Your task to perform on an android device: turn off picture-in-picture Image 0: 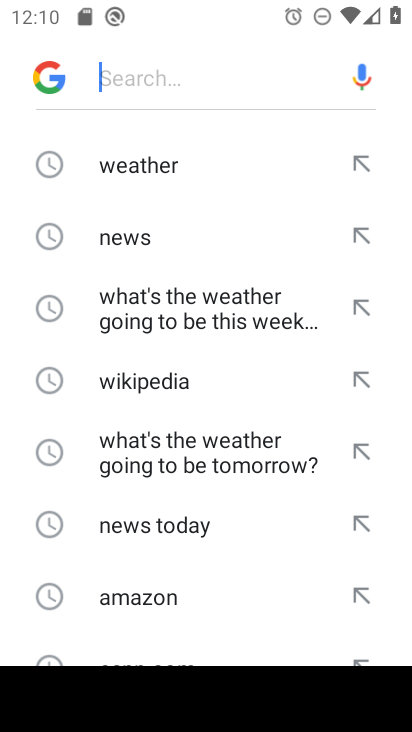
Step 0: press home button
Your task to perform on an android device: turn off picture-in-picture Image 1: 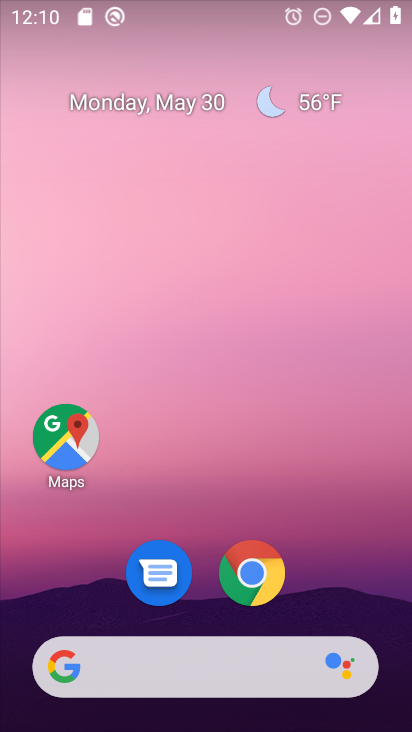
Step 1: drag from (278, 633) to (193, 0)
Your task to perform on an android device: turn off picture-in-picture Image 2: 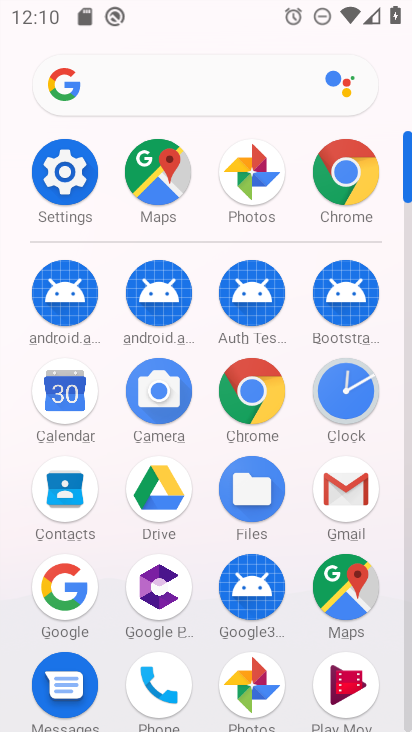
Step 2: click (65, 166)
Your task to perform on an android device: turn off picture-in-picture Image 3: 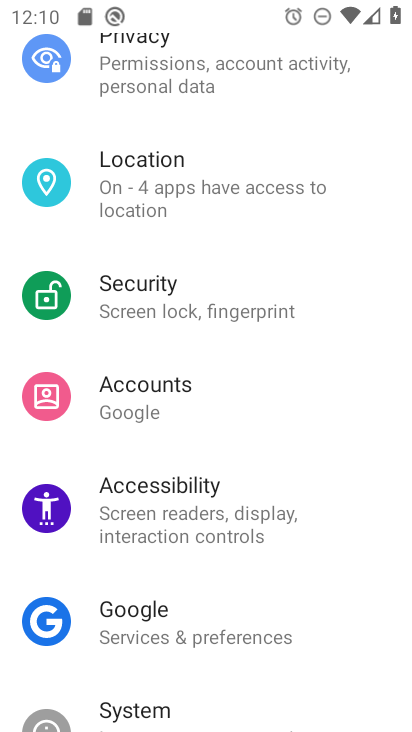
Step 3: drag from (279, 669) to (298, 30)
Your task to perform on an android device: turn off picture-in-picture Image 4: 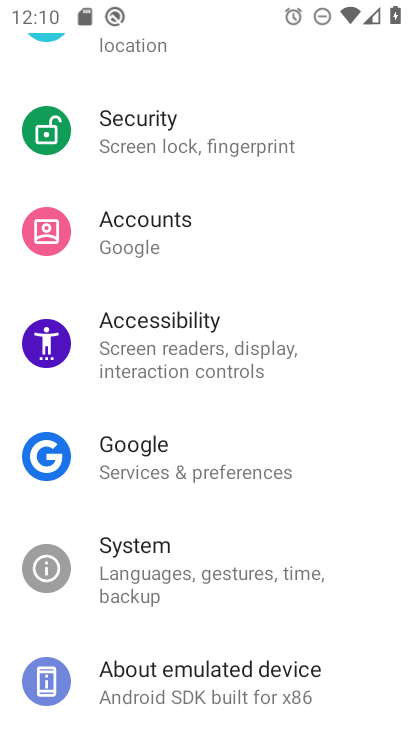
Step 4: click (227, 577)
Your task to perform on an android device: turn off picture-in-picture Image 5: 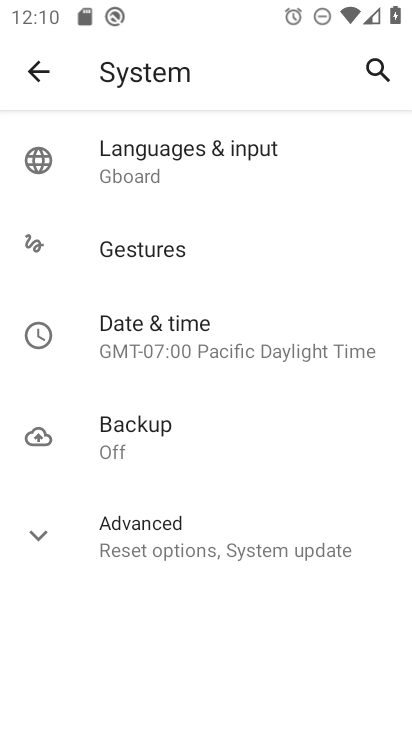
Step 5: click (159, 156)
Your task to perform on an android device: turn off picture-in-picture Image 6: 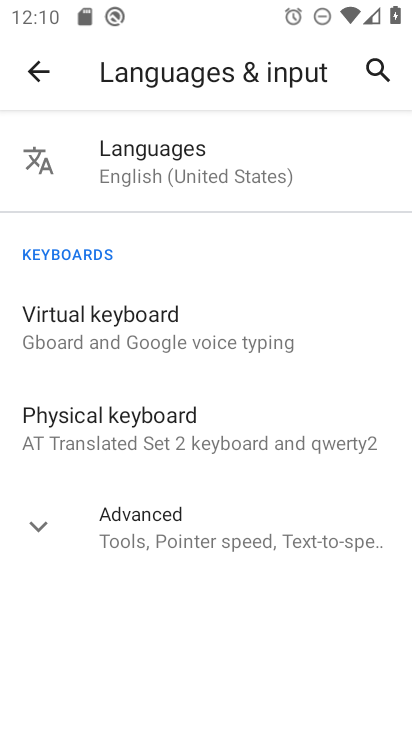
Step 6: click (178, 324)
Your task to perform on an android device: turn off picture-in-picture Image 7: 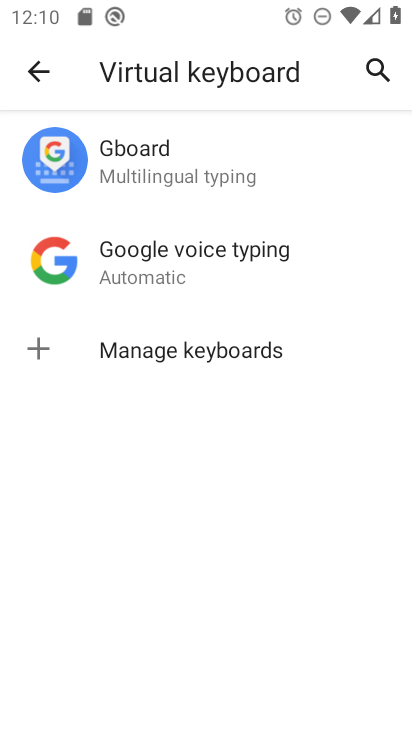
Step 7: click (161, 141)
Your task to perform on an android device: turn off picture-in-picture Image 8: 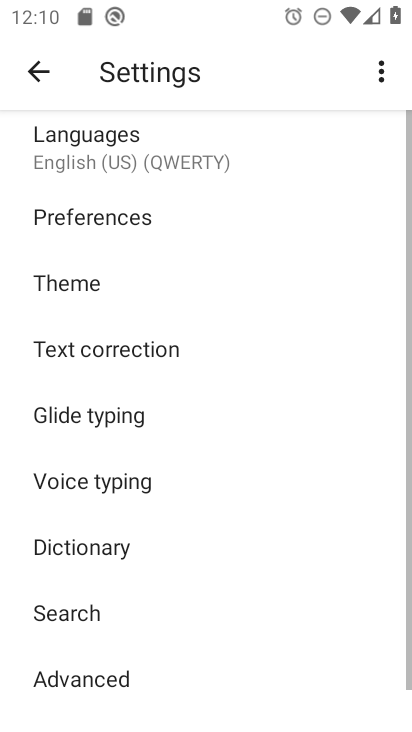
Step 8: drag from (206, 642) to (227, 450)
Your task to perform on an android device: turn off picture-in-picture Image 9: 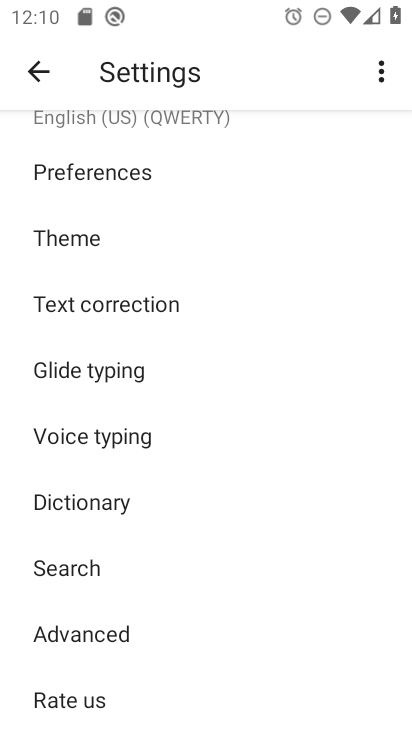
Step 9: click (75, 228)
Your task to perform on an android device: turn off picture-in-picture Image 10: 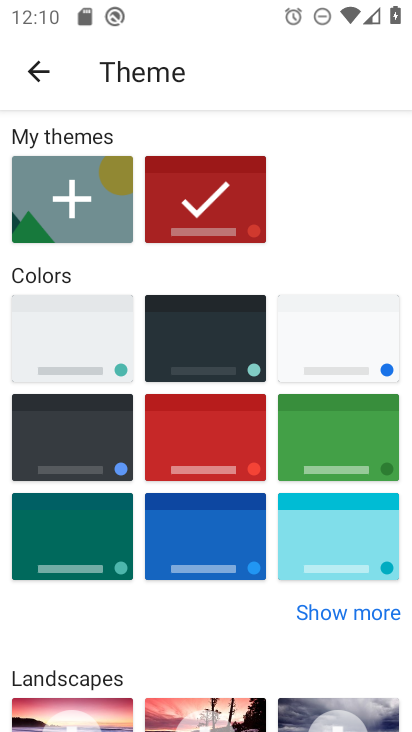
Step 10: click (358, 423)
Your task to perform on an android device: turn off picture-in-picture Image 11: 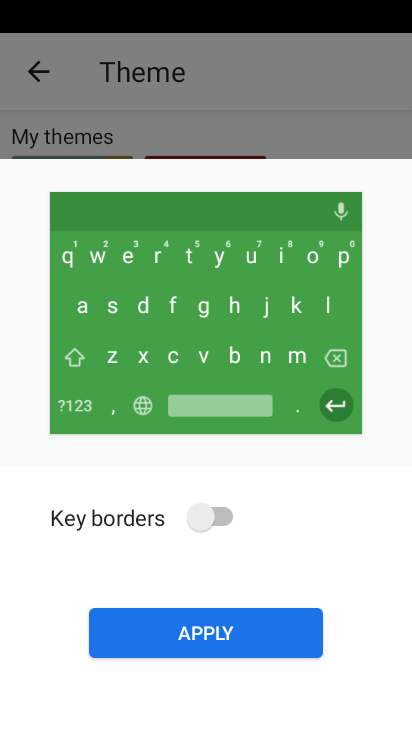
Step 11: click (292, 621)
Your task to perform on an android device: turn off picture-in-picture Image 12: 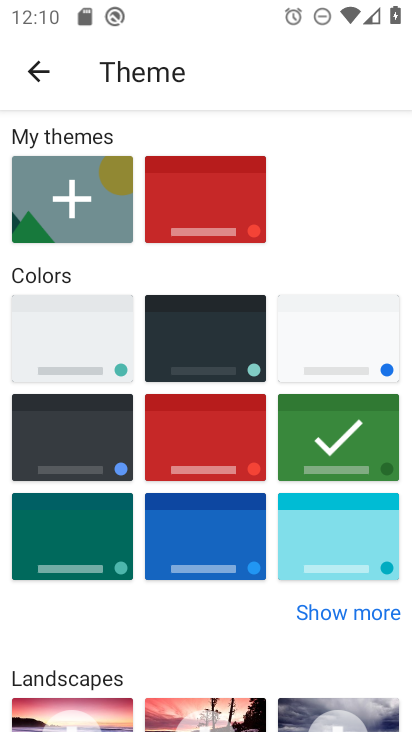
Step 12: task complete